Your task to perform on an android device: Go to Maps Image 0: 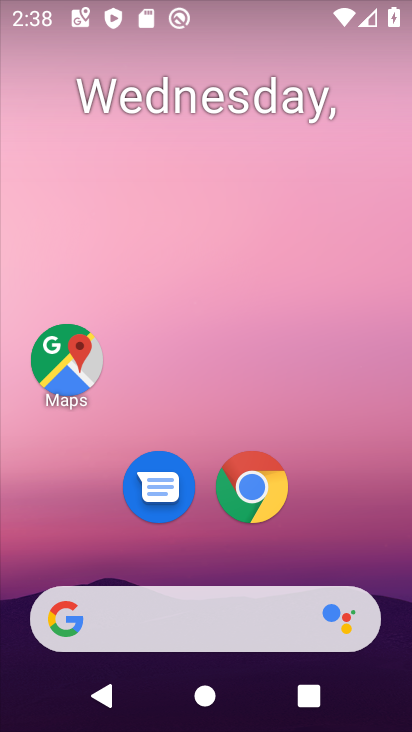
Step 0: click (58, 355)
Your task to perform on an android device: Go to Maps Image 1: 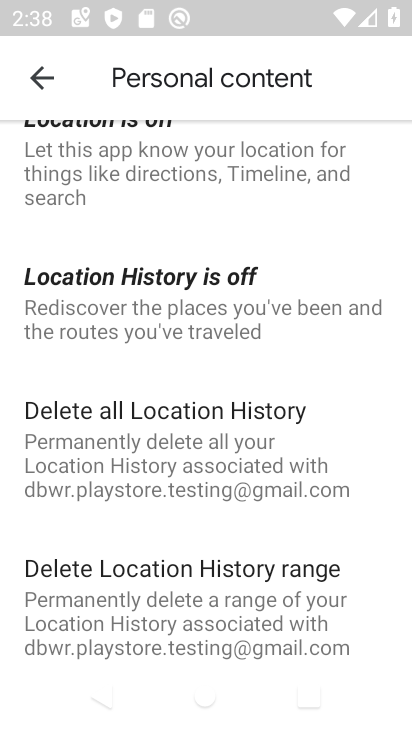
Step 1: task complete